Your task to perform on an android device: find which apps use the phone's location Image 0: 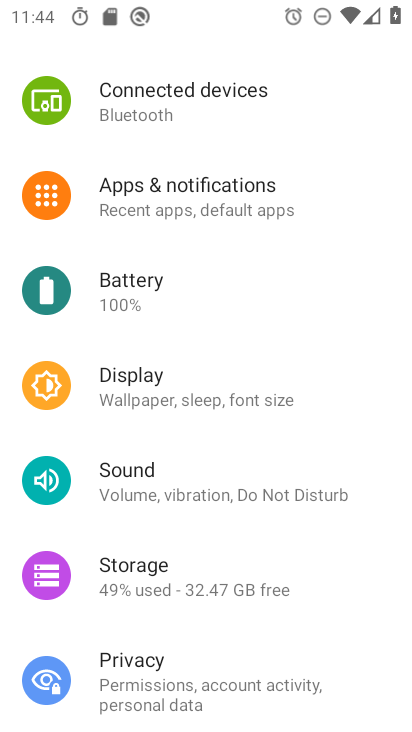
Step 0: drag from (301, 549) to (287, 247)
Your task to perform on an android device: find which apps use the phone's location Image 1: 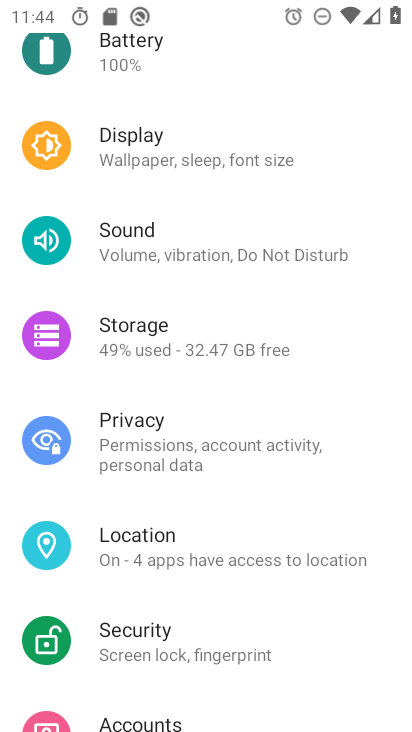
Step 1: click (144, 558)
Your task to perform on an android device: find which apps use the phone's location Image 2: 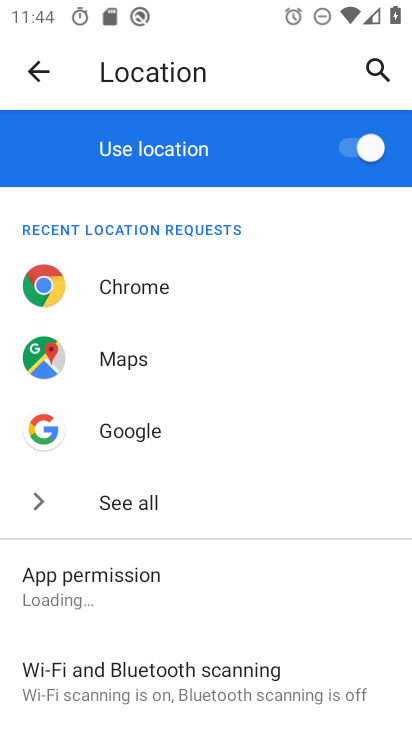
Step 2: click (73, 584)
Your task to perform on an android device: find which apps use the phone's location Image 3: 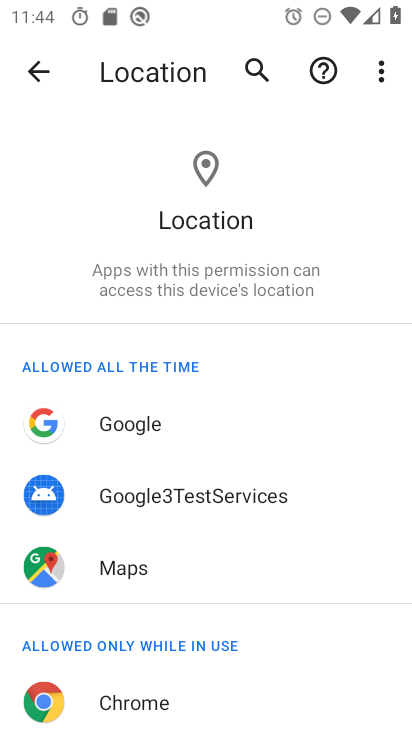
Step 3: task complete